Your task to perform on an android device: Open wifi settings Image 0: 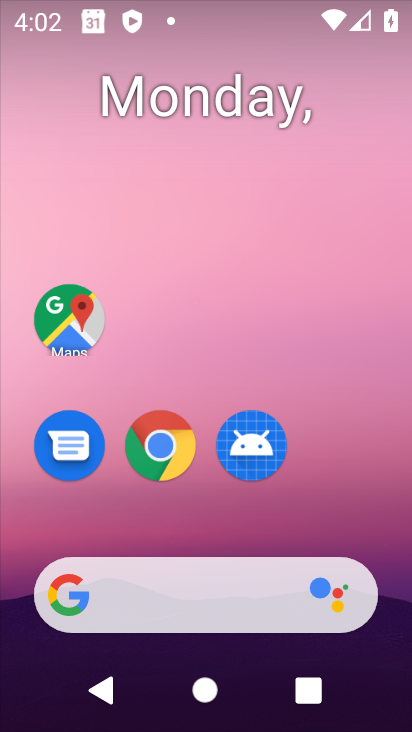
Step 0: drag from (336, 502) to (336, 468)
Your task to perform on an android device: Open wifi settings Image 1: 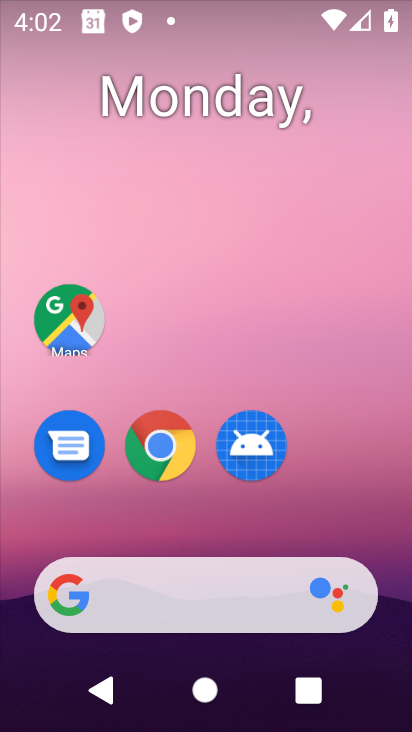
Step 1: drag from (334, 508) to (345, 41)
Your task to perform on an android device: Open wifi settings Image 2: 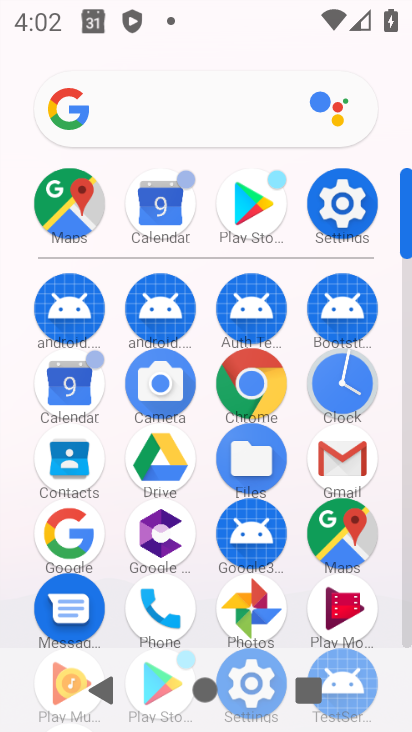
Step 2: drag from (340, 49) to (237, 532)
Your task to perform on an android device: Open wifi settings Image 3: 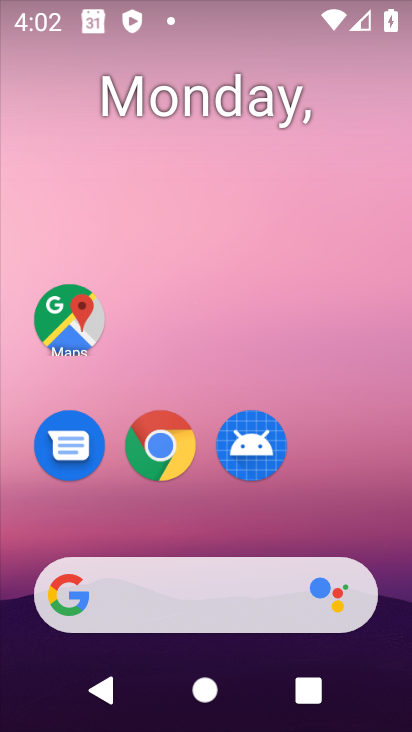
Step 3: drag from (293, 1) to (205, 723)
Your task to perform on an android device: Open wifi settings Image 4: 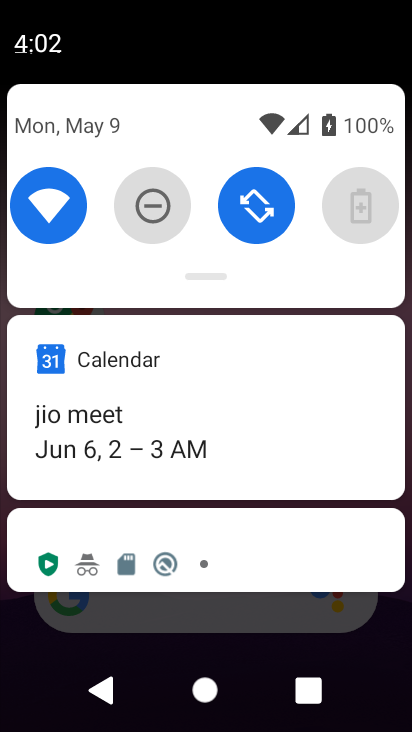
Step 4: drag from (228, 268) to (129, 730)
Your task to perform on an android device: Open wifi settings Image 5: 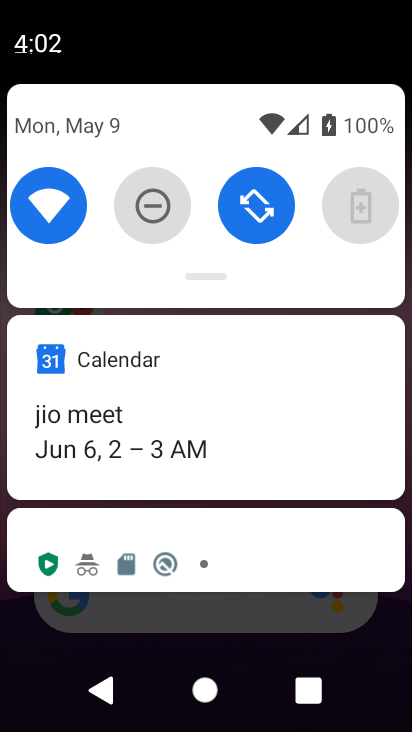
Step 5: drag from (185, 268) to (75, 722)
Your task to perform on an android device: Open wifi settings Image 6: 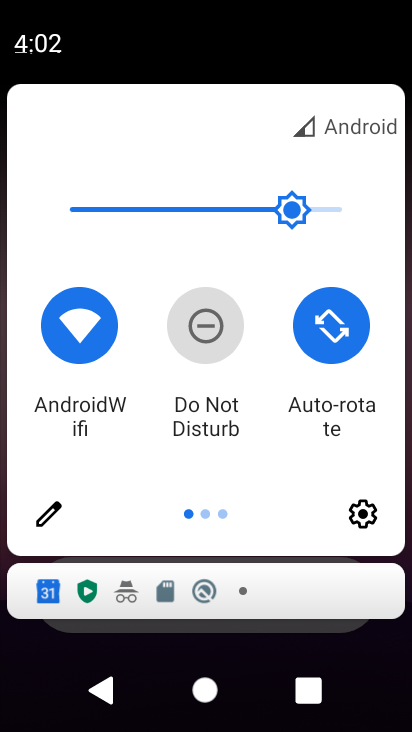
Step 6: click (100, 332)
Your task to perform on an android device: Open wifi settings Image 7: 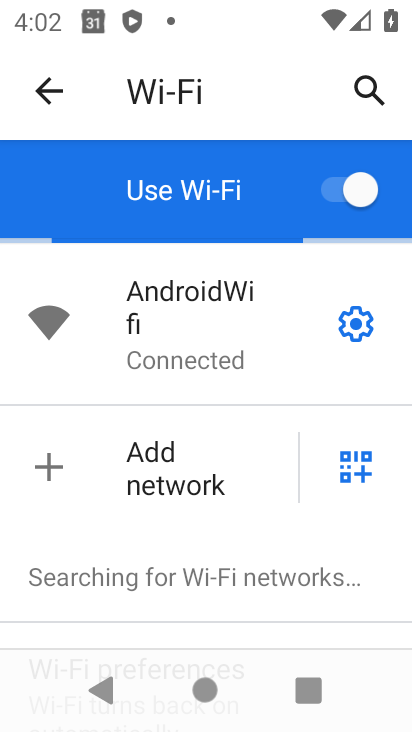
Step 7: task complete